Your task to perform on an android device: Clear the cart on amazon.com. Image 0: 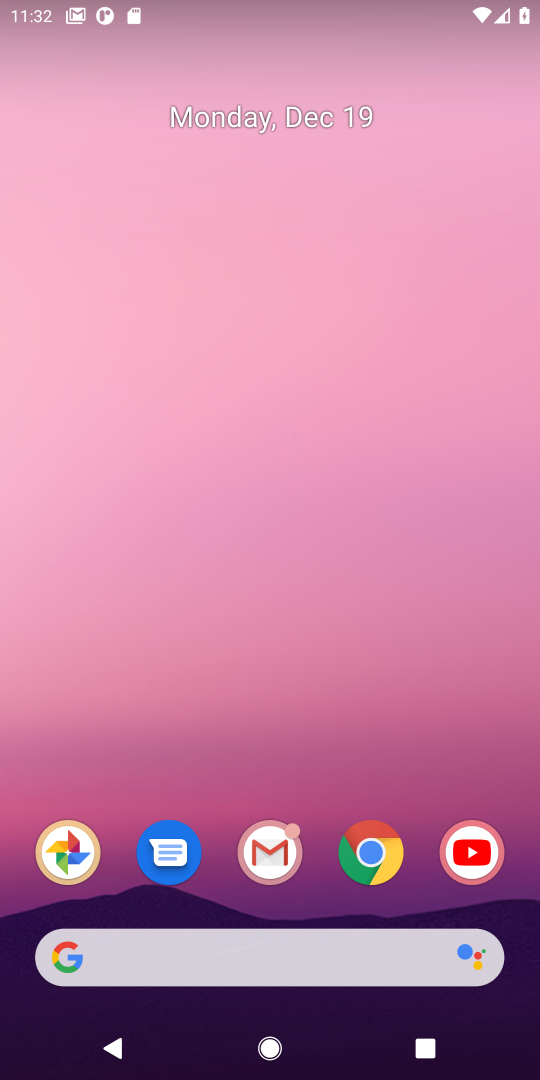
Step 0: click (376, 856)
Your task to perform on an android device: Clear the cart on amazon.com. Image 1: 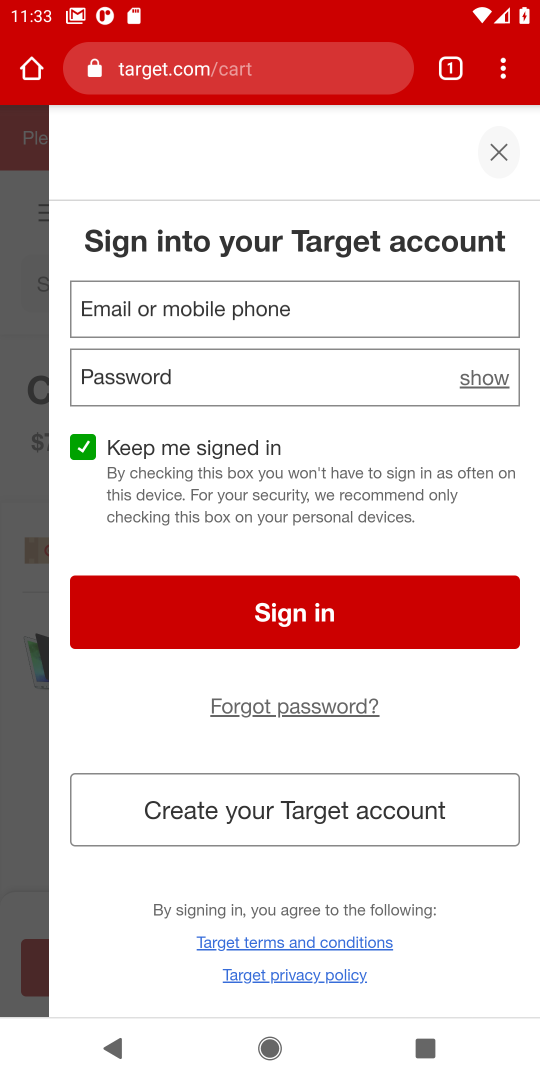
Step 1: click (183, 66)
Your task to perform on an android device: Clear the cart on amazon.com. Image 2: 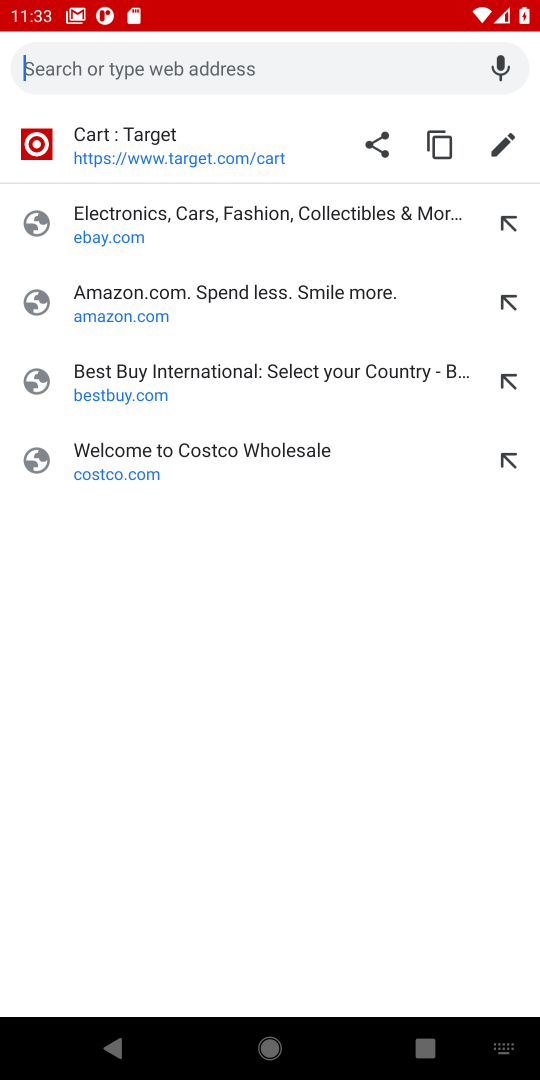
Step 2: click (121, 314)
Your task to perform on an android device: Clear the cart on amazon.com. Image 3: 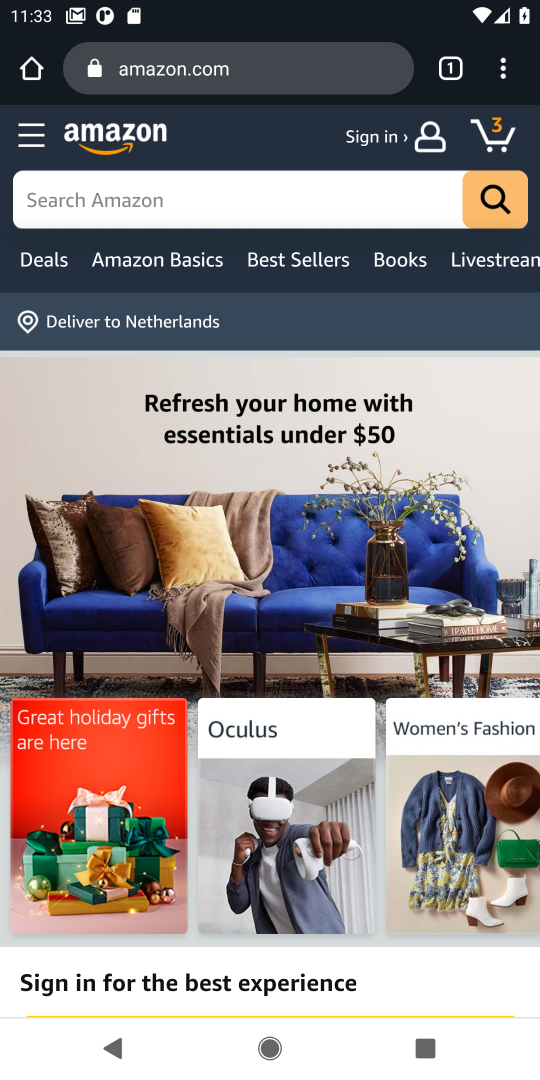
Step 3: click (490, 138)
Your task to perform on an android device: Clear the cart on amazon.com. Image 4: 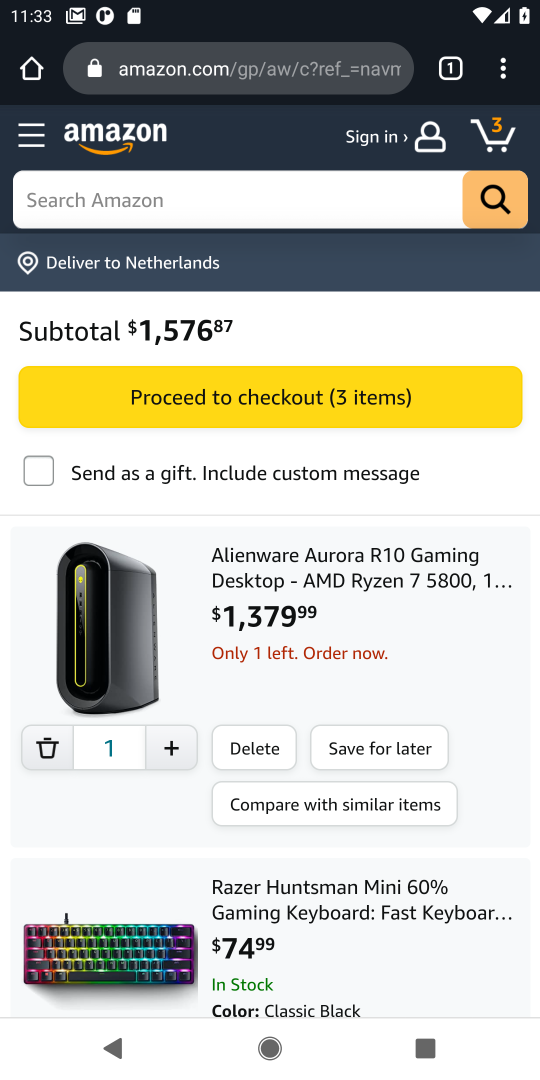
Step 4: click (250, 744)
Your task to perform on an android device: Clear the cart on amazon.com. Image 5: 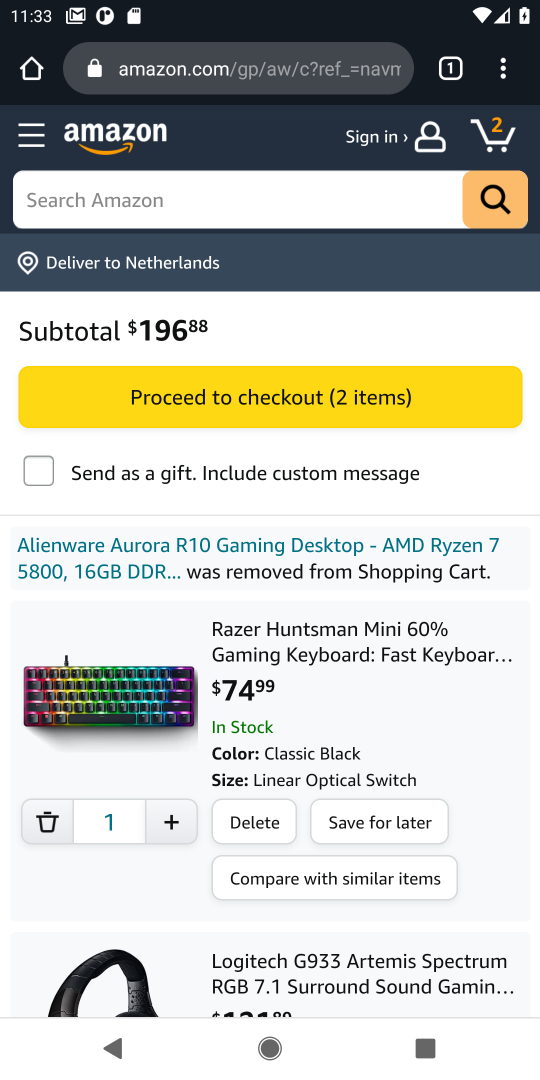
Step 5: click (259, 821)
Your task to perform on an android device: Clear the cart on amazon.com. Image 6: 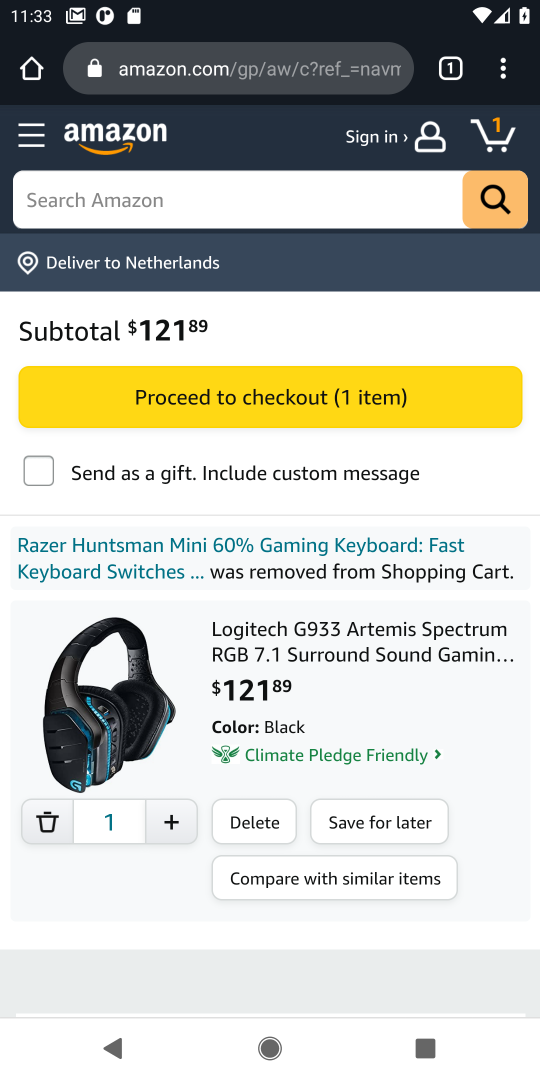
Step 6: click (259, 821)
Your task to perform on an android device: Clear the cart on amazon.com. Image 7: 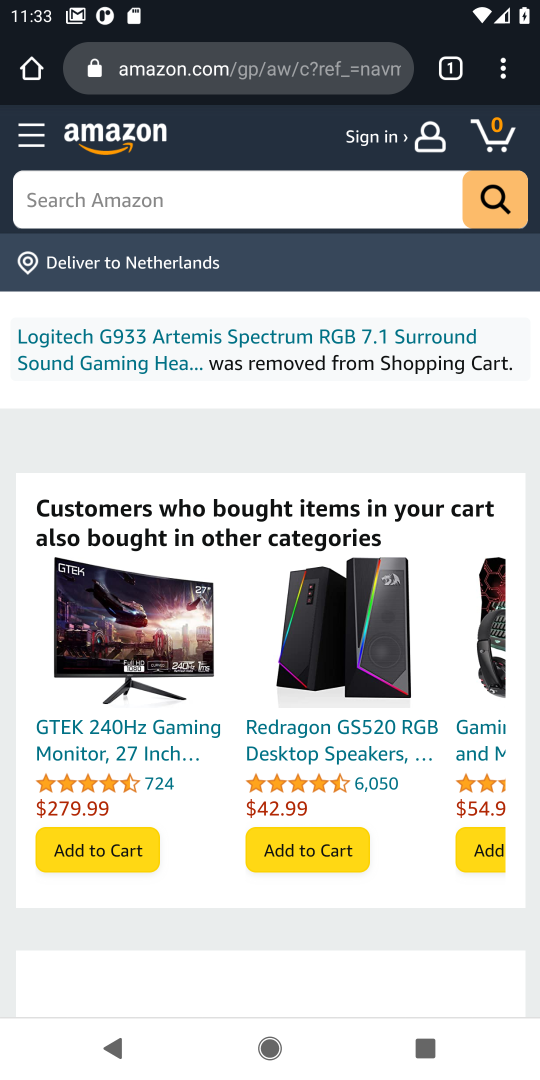
Step 7: task complete